Your task to perform on an android device: Open Chrome and go to settings Image 0: 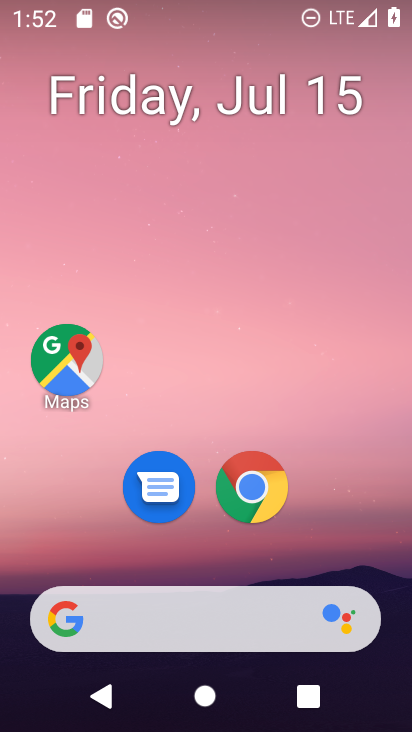
Step 0: drag from (245, 631) to (259, 159)
Your task to perform on an android device: Open Chrome and go to settings Image 1: 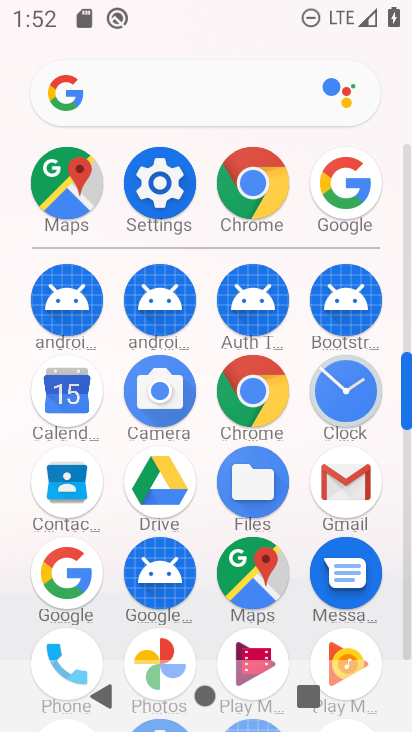
Step 1: click (233, 403)
Your task to perform on an android device: Open Chrome and go to settings Image 2: 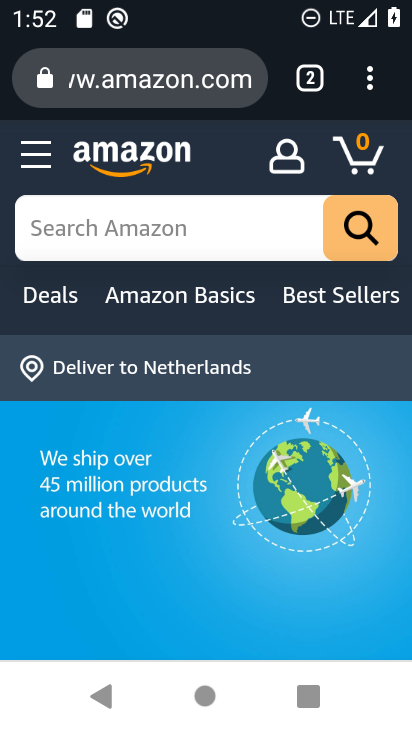
Step 2: click (369, 101)
Your task to perform on an android device: Open Chrome and go to settings Image 3: 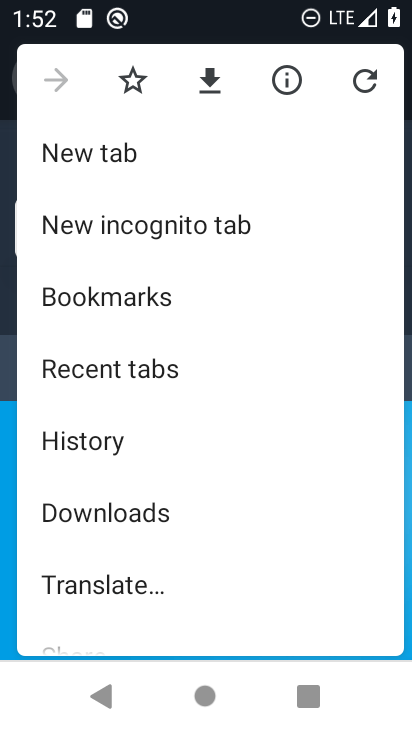
Step 3: drag from (175, 417) to (188, 285)
Your task to perform on an android device: Open Chrome and go to settings Image 4: 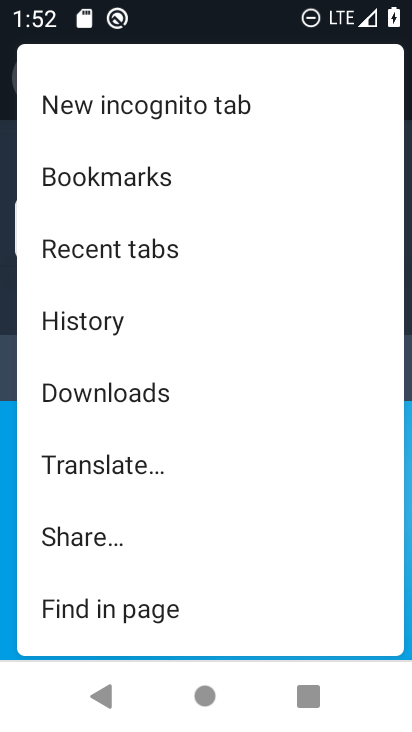
Step 4: drag from (111, 566) to (175, 220)
Your task to perform on an android device: Open Chrome and go to settings Image 5: 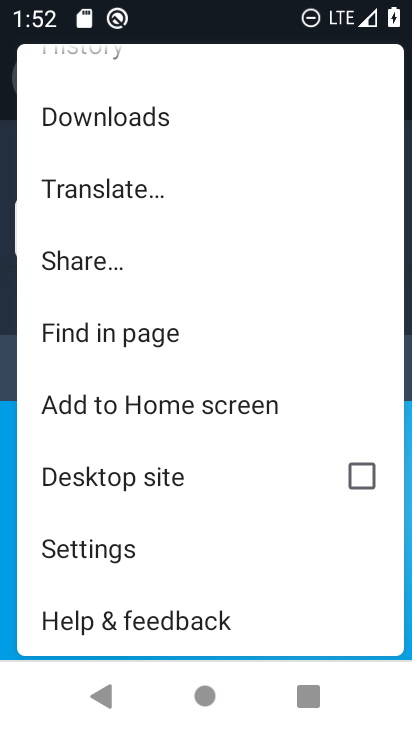
Step 5: click (118, 548)
Your task to perform on an android device: Open Chrome and go to settings Image 6: 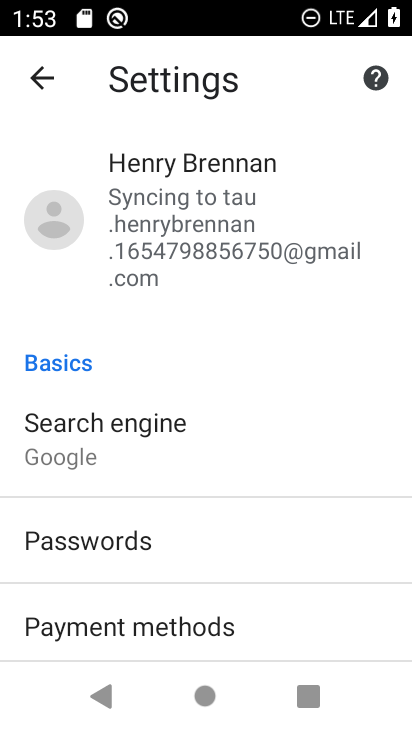
Step 6: task complete